Your task to perform on an android device: set the stopwatch Image 0: 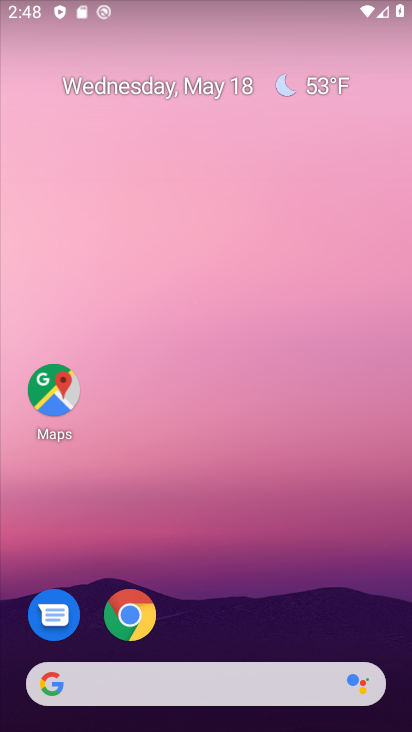
Step 0: drag from (173, 622) to (292, 167)
Your task to perform on an android device: set the stopwatch Image 1: 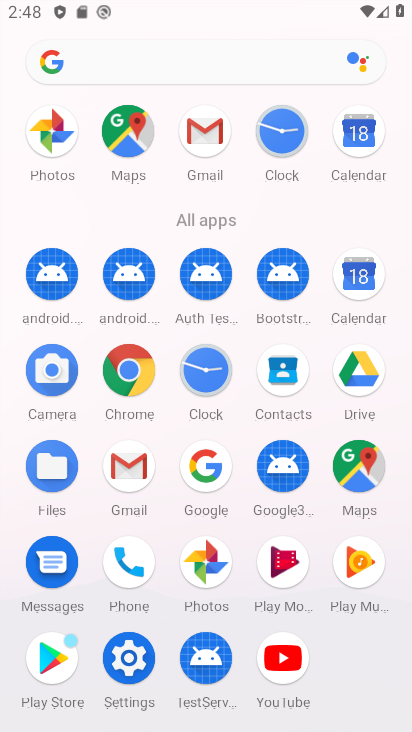
Step 1: drag from (164, 598) to (193, 417)
Your task to perform on an android device: set the stopwatch Image 2: 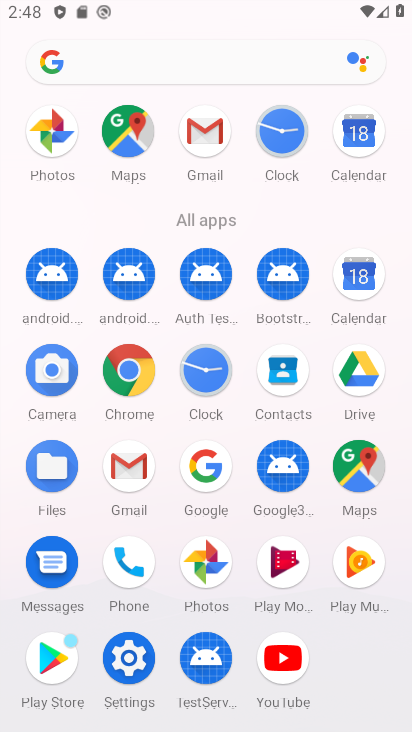
Step 2: click (204, 369)
Your task to perform on an android device: set the stopwatch Image 3: 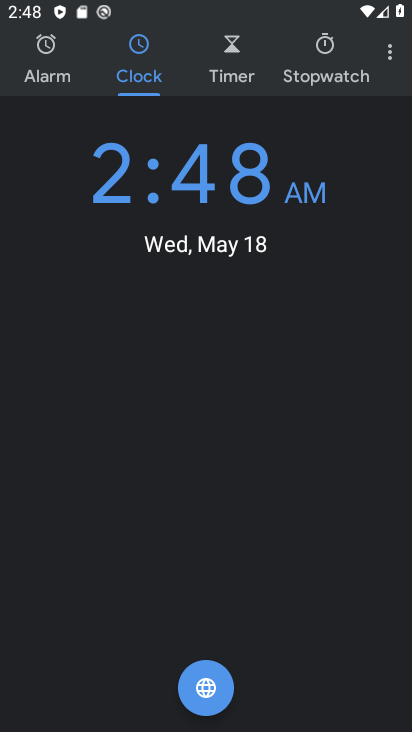
Step 3: click (320, 76)
Your task to perform on an android device: set the stopwatch Image 4: 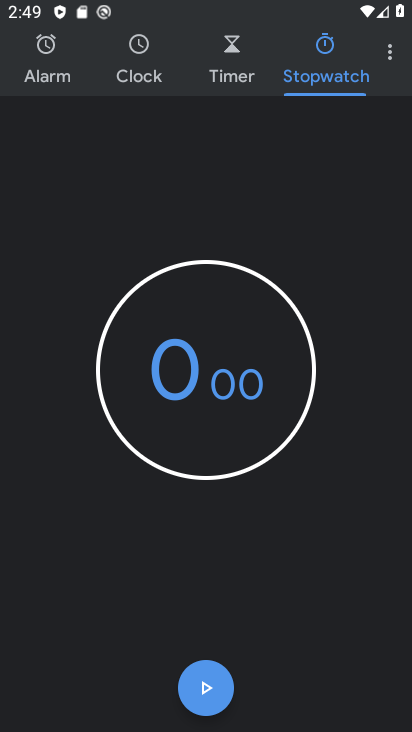
Step 4: click (219, 695)
Your task to perform on an android device: set the stopwatch Image 5: 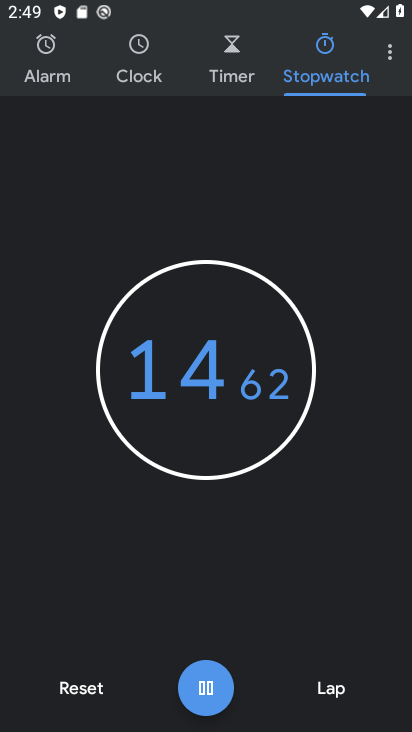
Step 5: task complete